Your task to perform on an android device: Search for Italian restaurants on Maps Image 0: 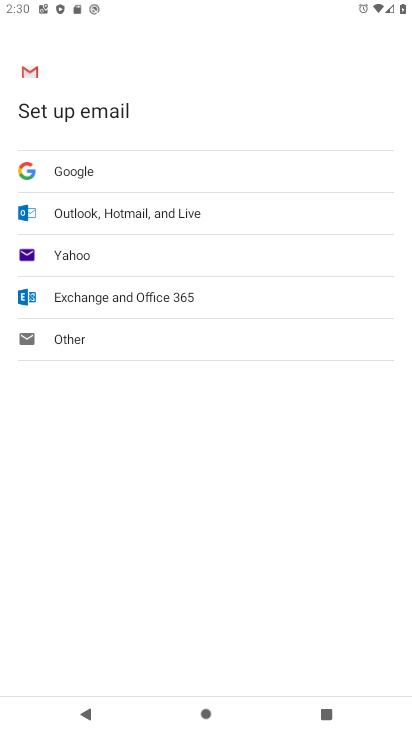
Step 0: press home button
Your task to perform on an android device: Search for Italian restaurants on Maps Image 1: 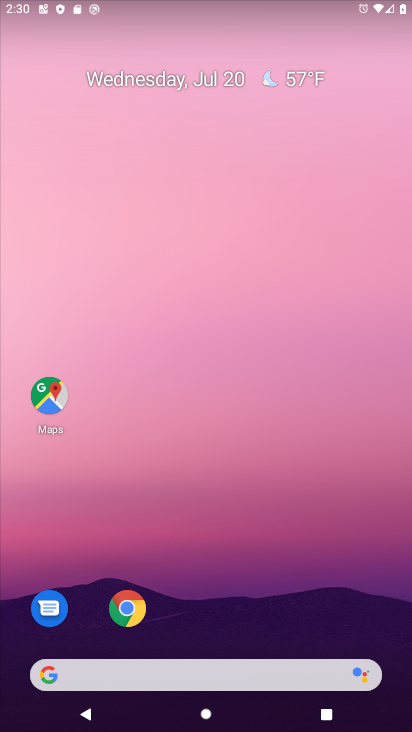
Step 1: click (44, 391)
Your task to perform on an android device: Search for Italian restaurants on Maps Image 2: 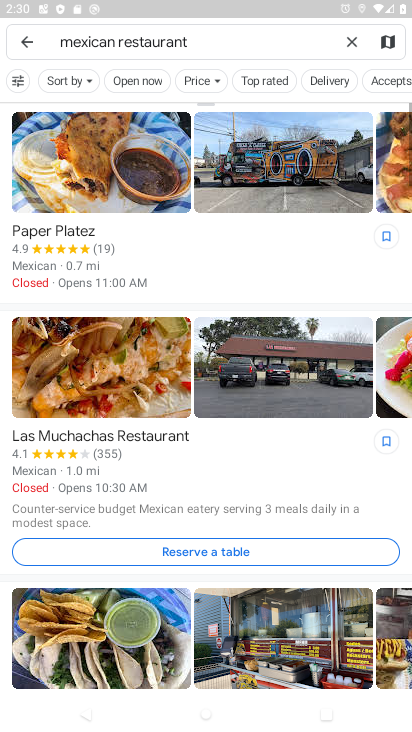
Step 2: click (350, 43)
Your task to perform on an android device: Search for Italian restaurants on Maps Image 3: 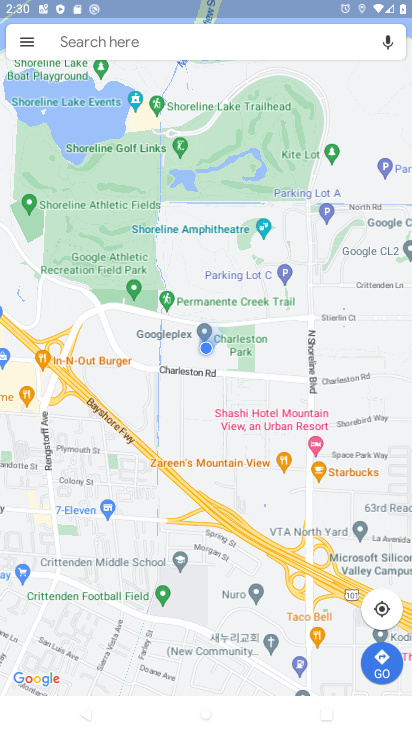
Step 3: click (105, 36)
Your task to perform on an android device: Search for Italian restaurants on Maps Image 4: 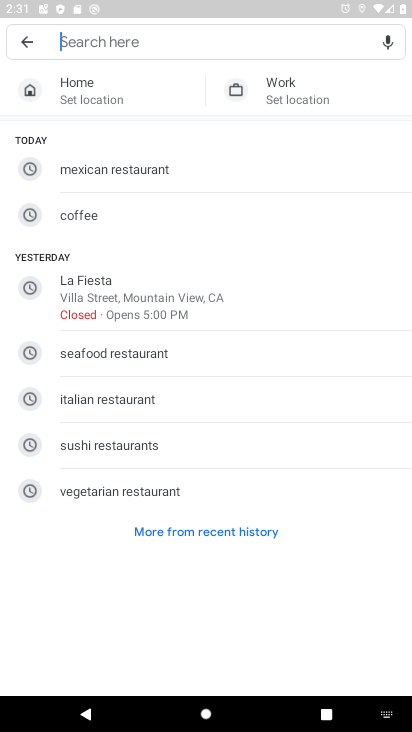
Step 4: type "italian"
Your task to perform on an android device: Search for Italian restaurants on Maps Image 5: 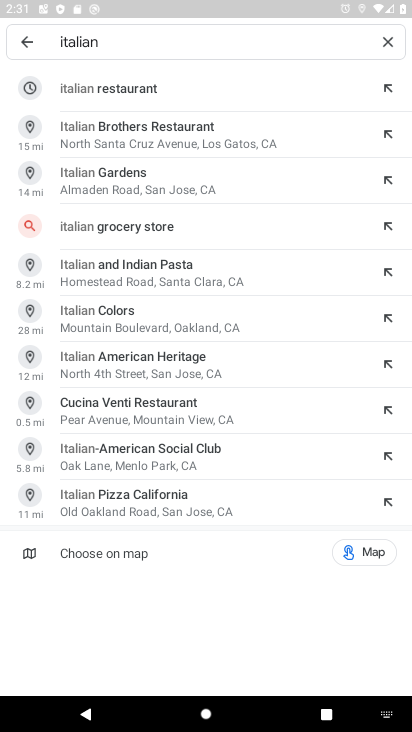
Step 5: click (93, 103)
Your task to perform on an android device: Search for Italian restaurants on Maps Image 6: 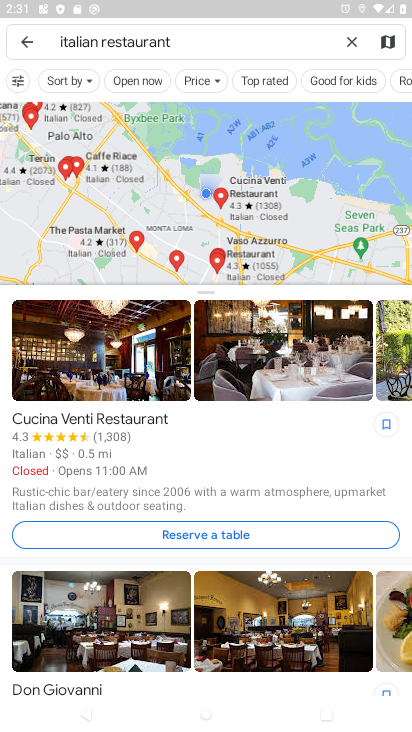
Step 6: task complete